Your task to perform on an android device: Open the map Image 0: 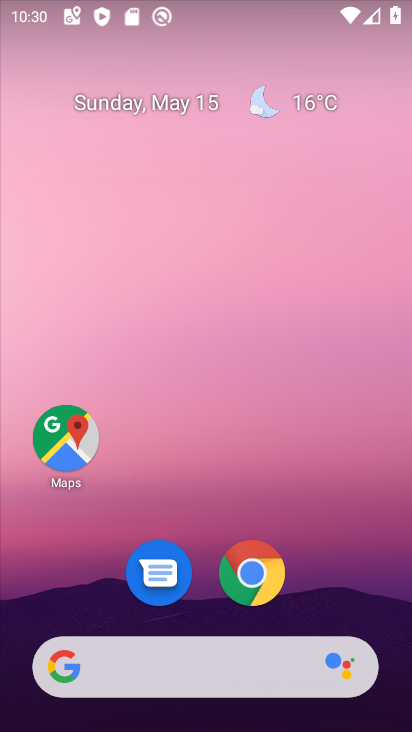
Step 0: click (51, 450)
Your task to perform on an android device: Open the map Image 1: 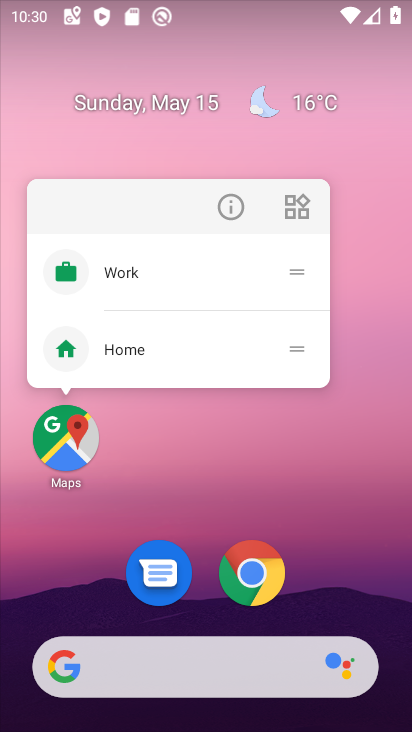
Step 1: click (69, 422)
Your task to perform on an android device: Open the map Image 2: 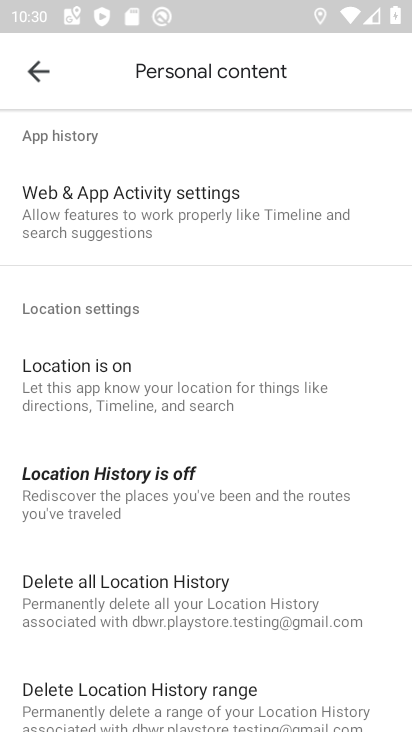
Step 2: task complete